Your task to perform on an android device: find photos in the google photos app Image 0: 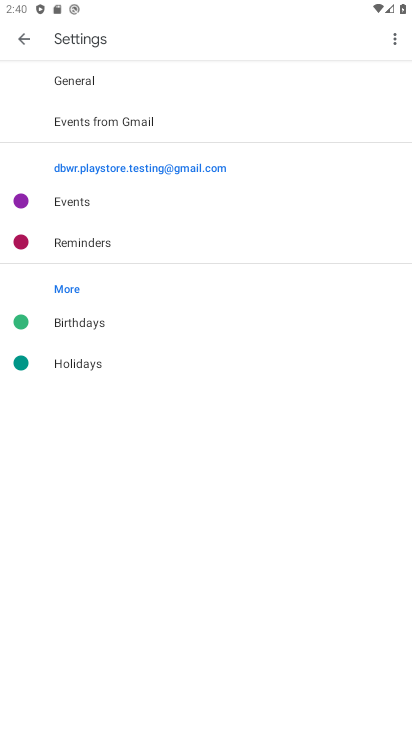
Step 0: click (23, 35)
Your task to perform on an android device: find photos in the google photos app Image 1: 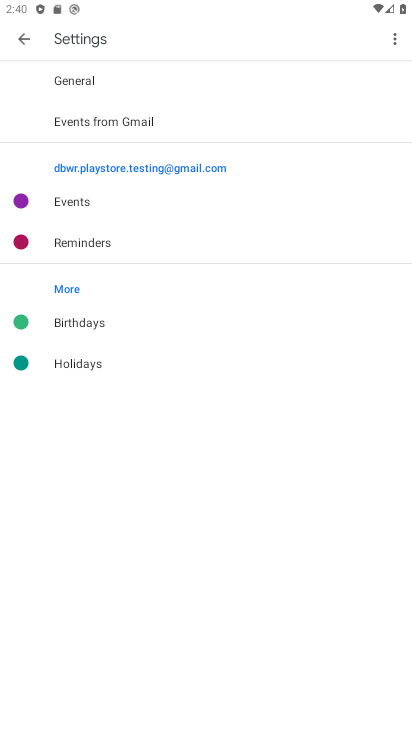
Step 1: click (43, 35)
Your task to perform on an android device: find photos in the google photos app Image 2: 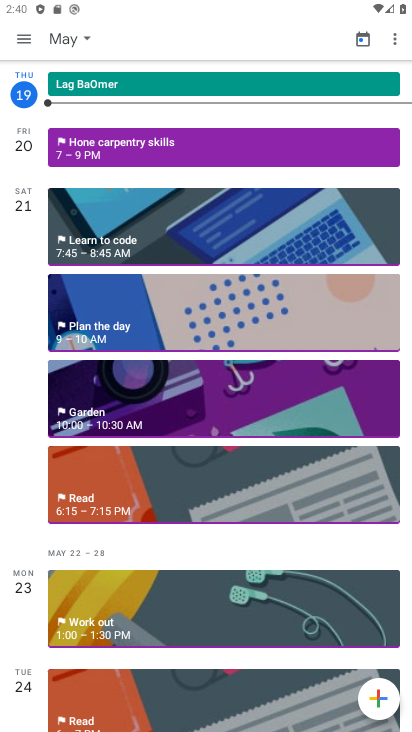
Step 2: press home button
Your task to perform on an android device: find photos in the google photos app Image 3: 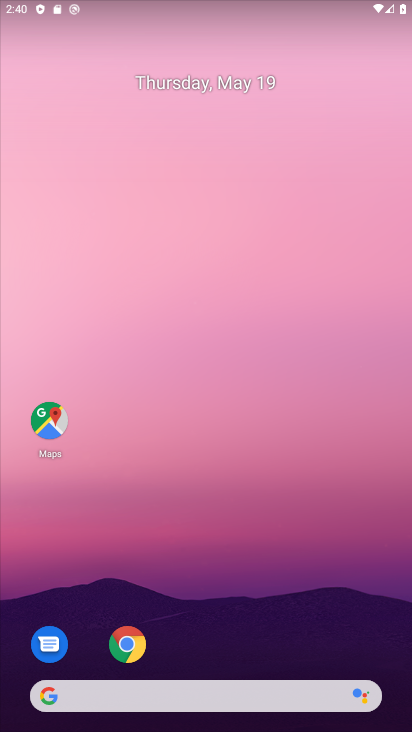
Step 3: drag from (297, 618) to (300, 249)
Your task to perform on an android device: find photos in the google photos app Image 4: 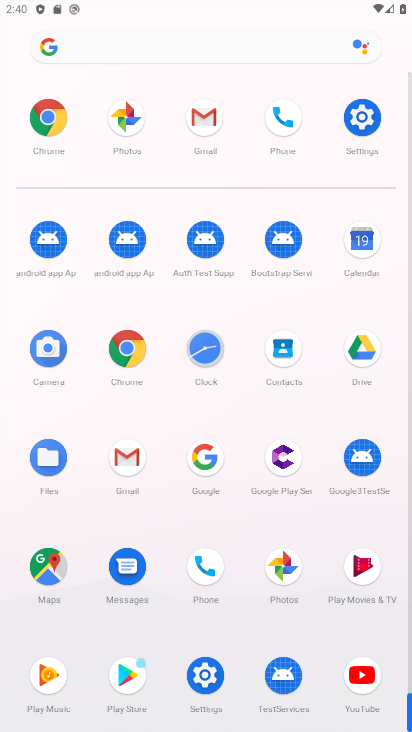
Step 4: click (297, 558)
Your task to perform on an android device: find photos in the google photos app Image 5: 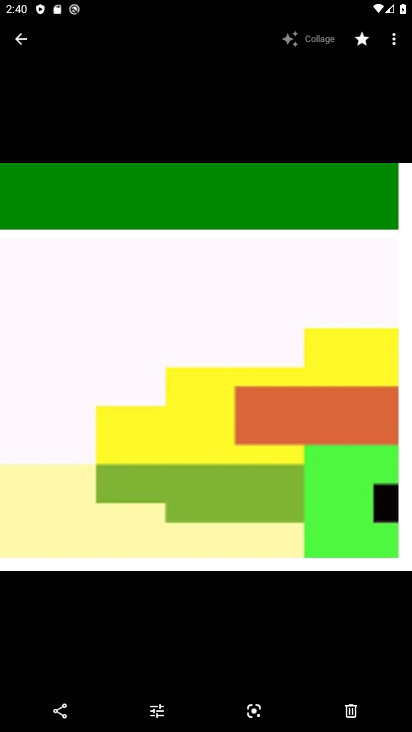
Step 5: click (23, 40)
Your task to perform on an android device: find photos in the google photos app Image 6: 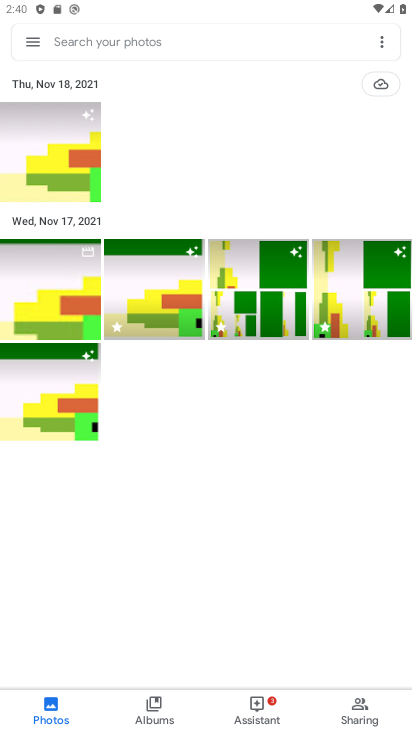
Step 6: task complete